Your task to perform on an android device: Go to Reddit.com Image 0: 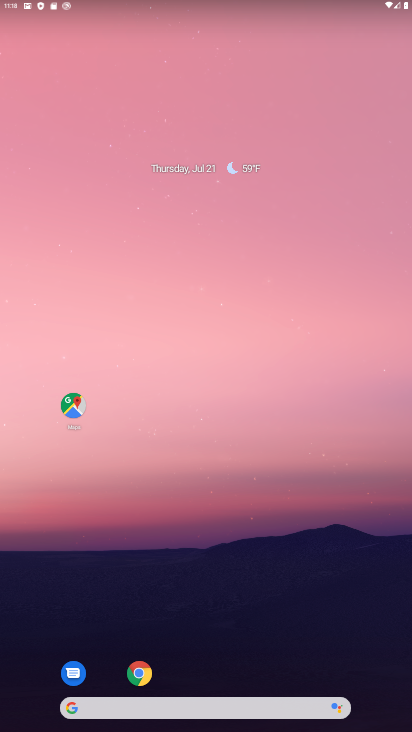
Step 0: click (134, 681)
Your task to perform on an android device: Go to Reddit.com Image 1: 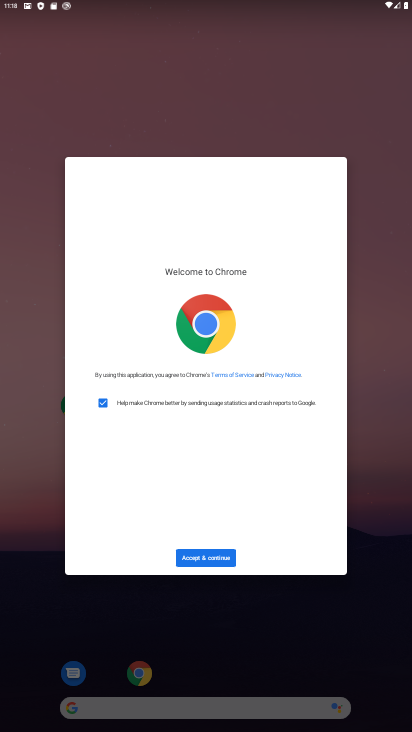
Step 1: click (215, 549)
Your task to perform on an android device: Go to Reddit.com Image 2: 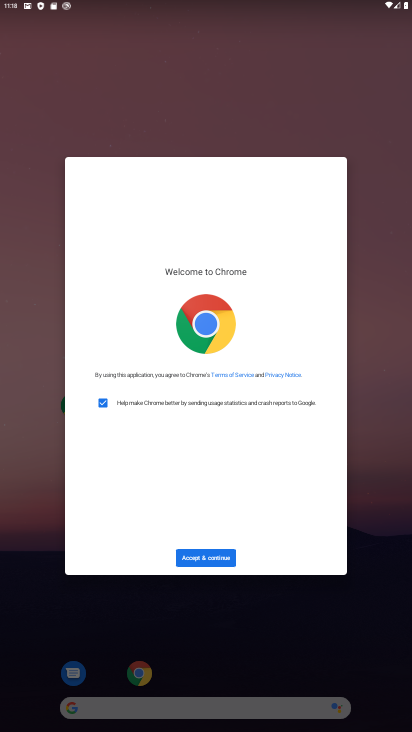
Step 2: click (194, 566)
Your task to perform on an android device: Go to Reddit.com Image 3: 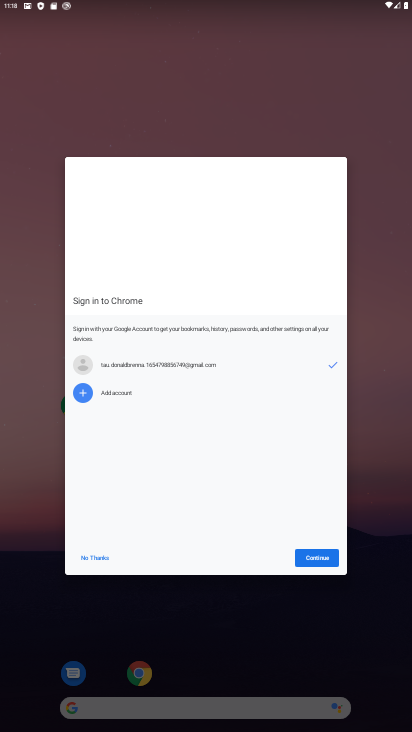
Step 3: click (307, 559)
Your task to perform on an android device: Go to Reddit.com Image 4: 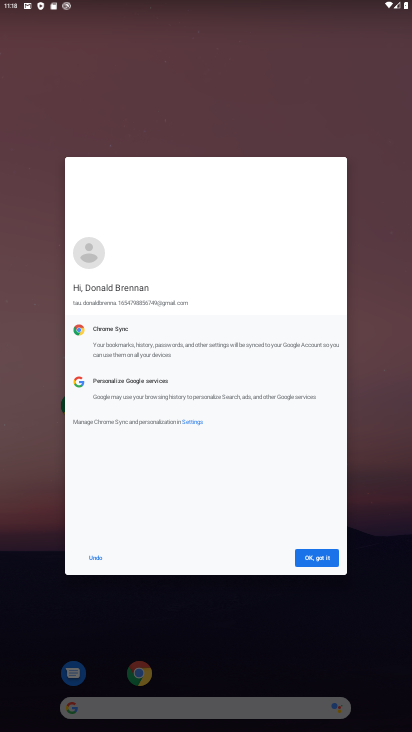
Step 4: click (307, 559)
Your task to perform on an android device: Go to Reddit.com Image 5: 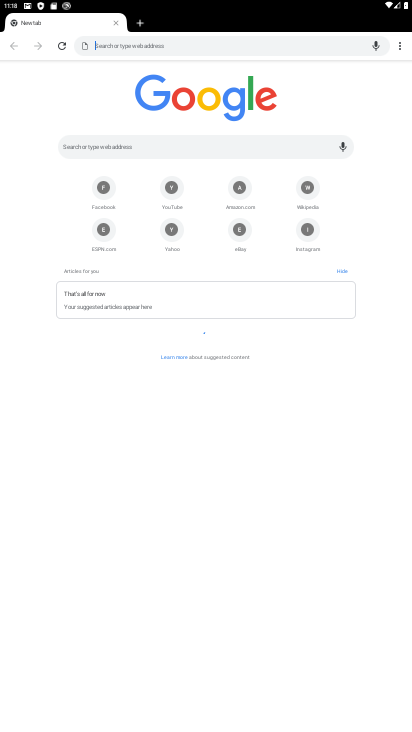
Step 5: click (128, 146)
Your task to perform on an android device: Go to Reddit.com Image 6: 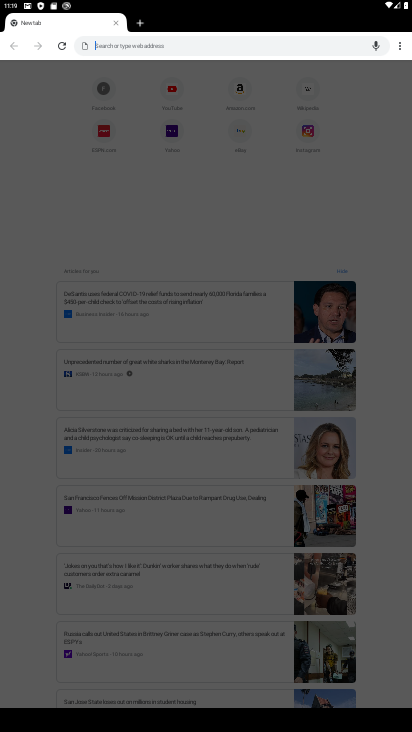
Step 6: type "reddit.com"
Your task to perform on an android device: Go to Reddit.com Image 7: 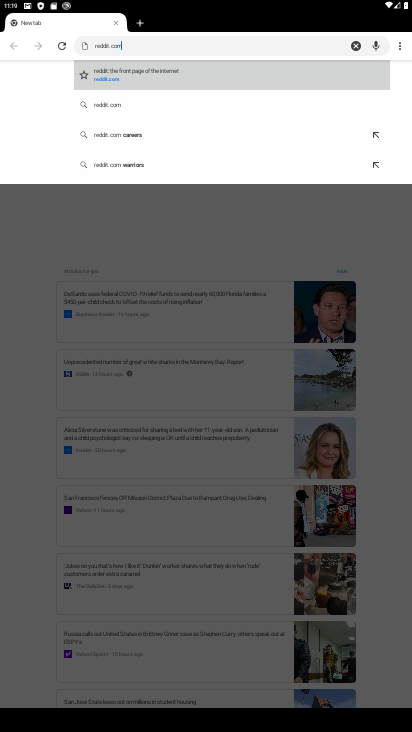
Step 7: click (119, 69)
Your task to perform on an android device: Go to Reddit.com Image 8: 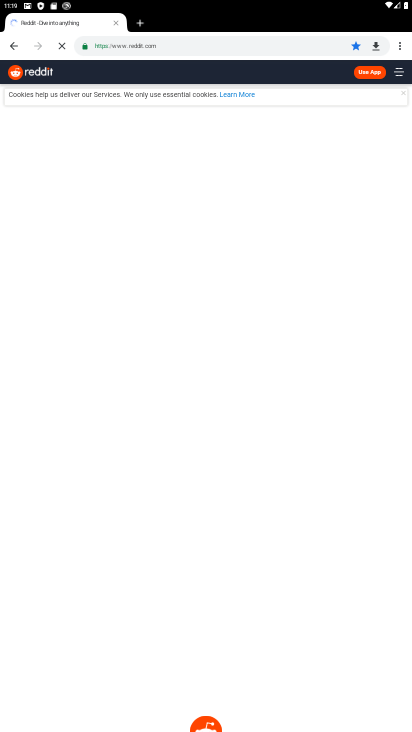
Step 8: task complete